Your task to perform on an android device: turn on the 24-hour format for clock Image 0: 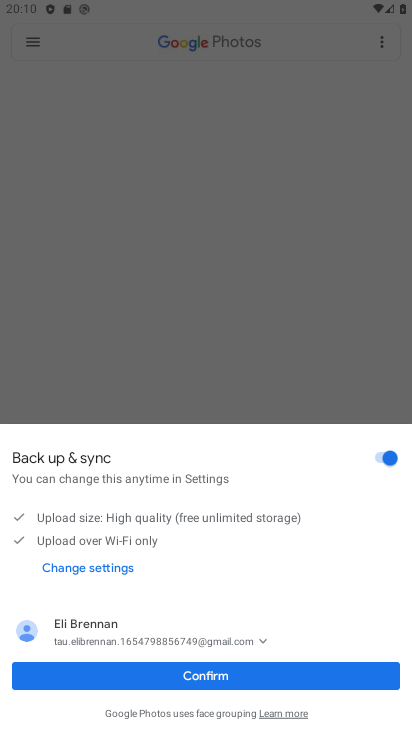
Step 0: press home button
Your task to perform on an android device: turn on the 24-hour format for clock Image 1: 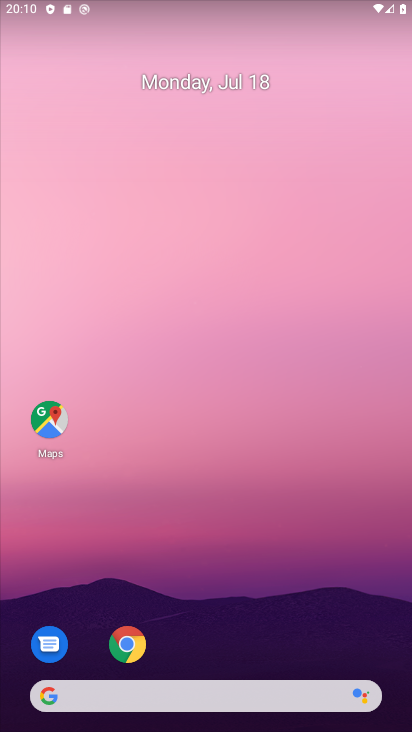
Step 1: drag from (181, 698) to (222, 281)
Your task to perform on an android device: turn on the 24-hour format for clock Image 2: 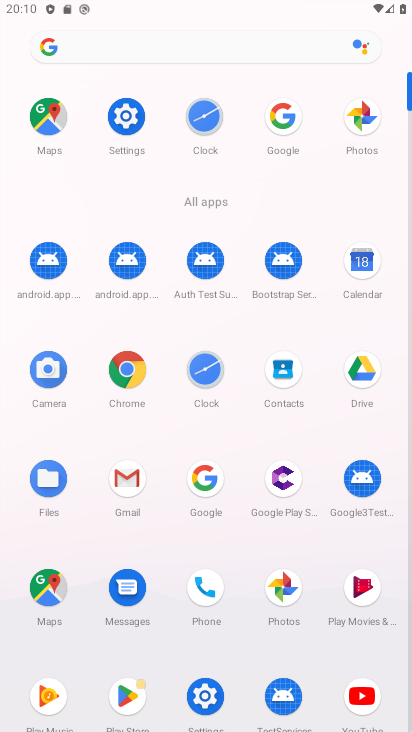
Step 2: click (205, 375)
Your task to perform on an android device: turn on the 24-hour format for clock Image 3: 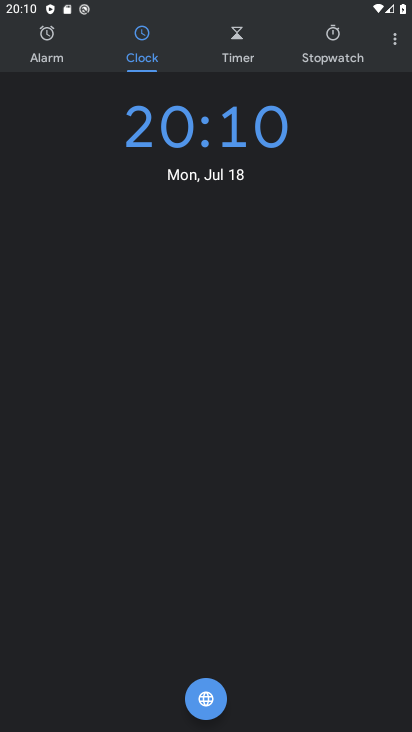
Step 3: click (394, 44)
Your task to perform on an android device: turn on the 24-hour format for clock Image 4: 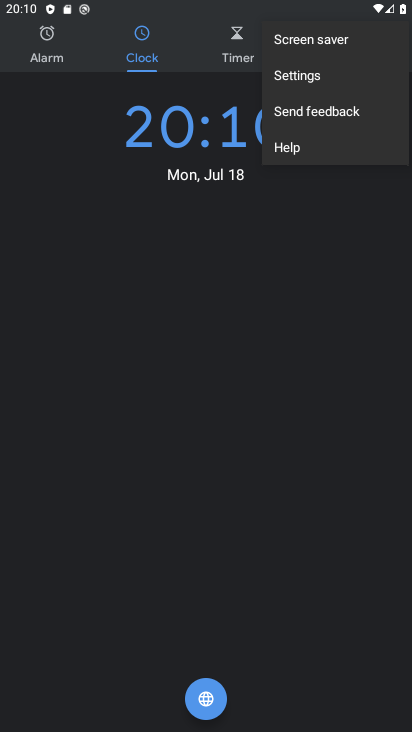
Step 4: click (323, 82)
Your task to perform on an android device: turn on the 24-hour format for clock Image 5: 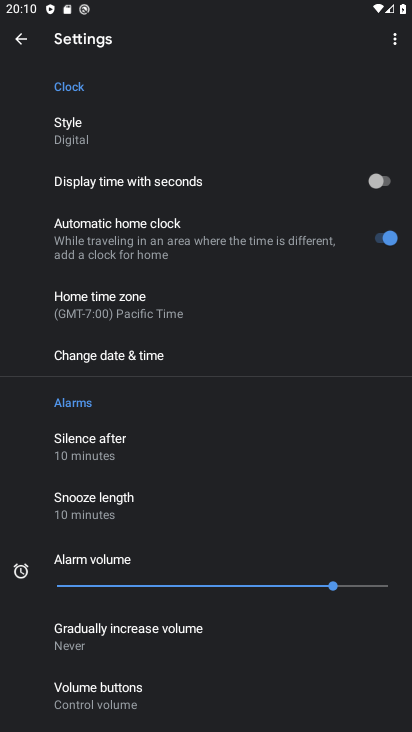
Step 5: click (161, 361)
Your task to perform on an android device: turn on the 24-hour format for clock Image 6: 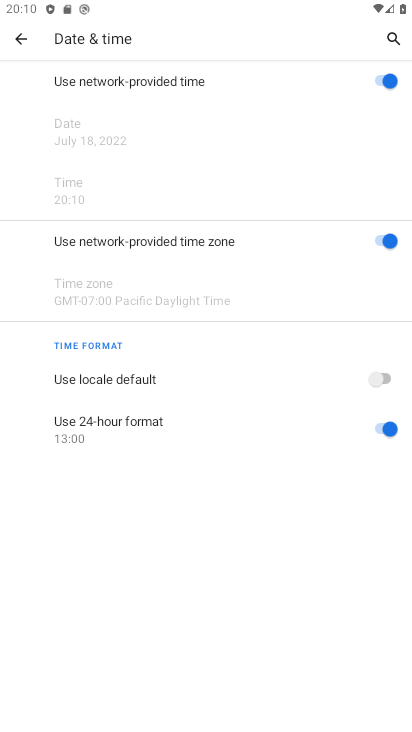
Step 6: task complete